Your task to perform on an android device: Open Wikipedia Image 0: 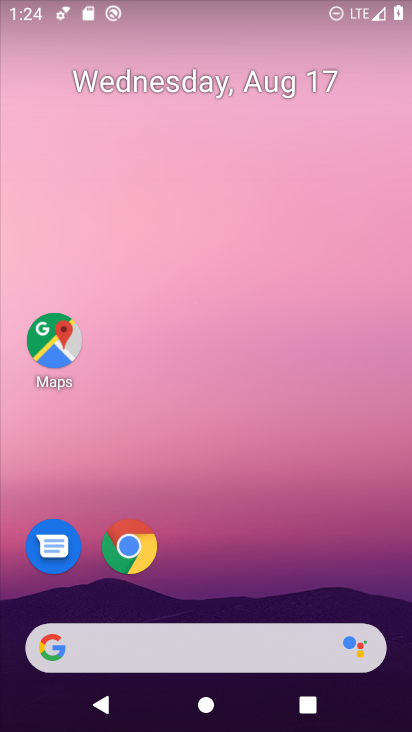
Step 0: click (132, 546)
Your task to perform on an android device: Open Wikipedia Image 1: 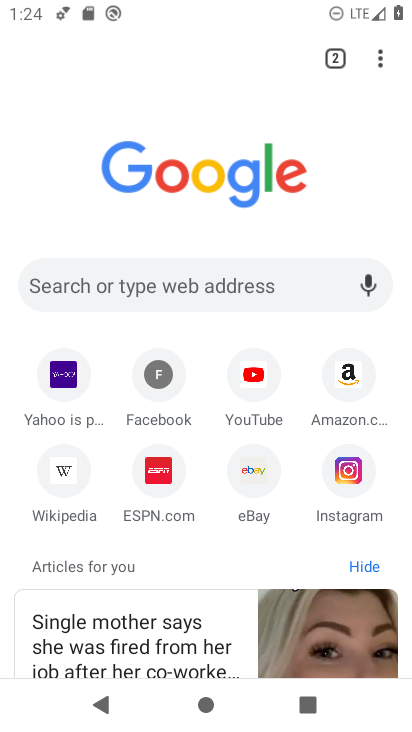
Step 1: click (62, 469)
Your task to perform on an android device: Open Wikipedia Image 2: 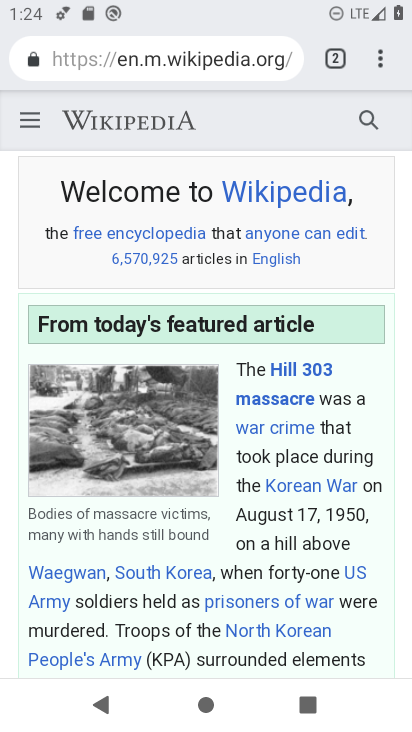
Step 2: task complete